Your task to perform on an android device: Go to wifi settings Image 0: 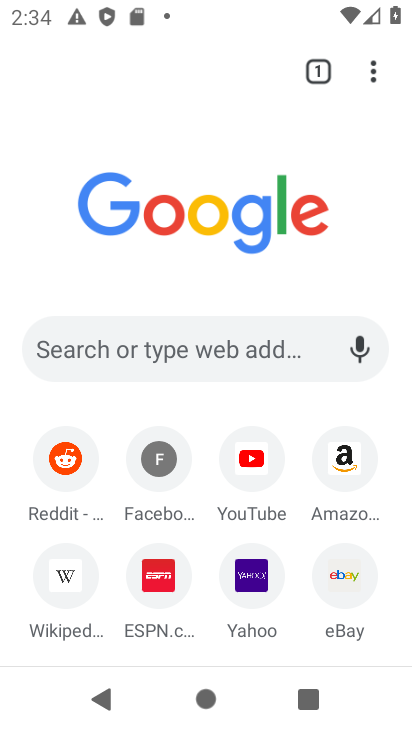
Step 0: press home button
Your task to perform on an android device: Go to wifi settings Image 1: 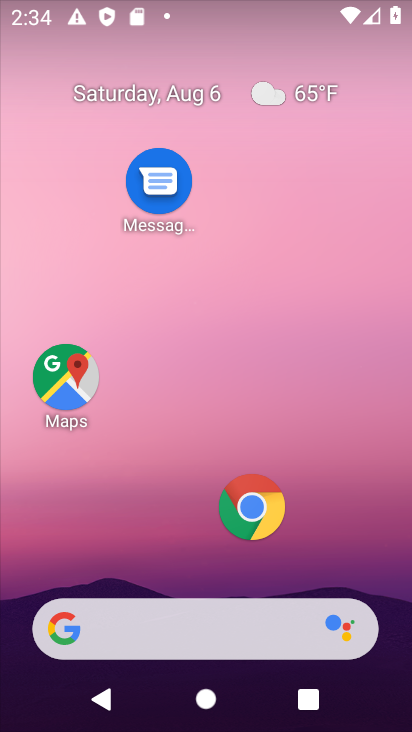
Step 1: click (201, 69)
Your task to perform on an android device: Go to wifi settings Image 2: 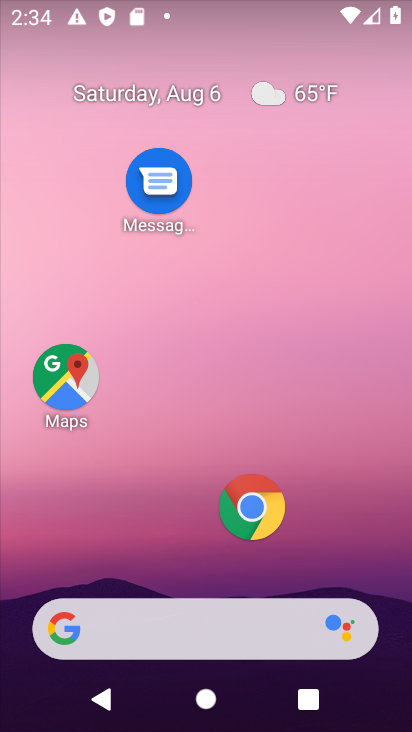
Step 2: drag from (183, 545) to (269, 0)
Your task to perform on an android device: Go to wifi settings Image 3: 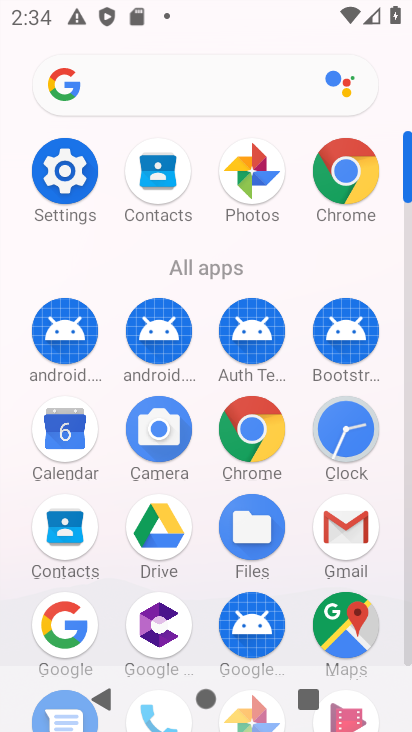
Step 3: click (67, 177)
Your task to perform on an android device: Go to wifi settings Image 4: 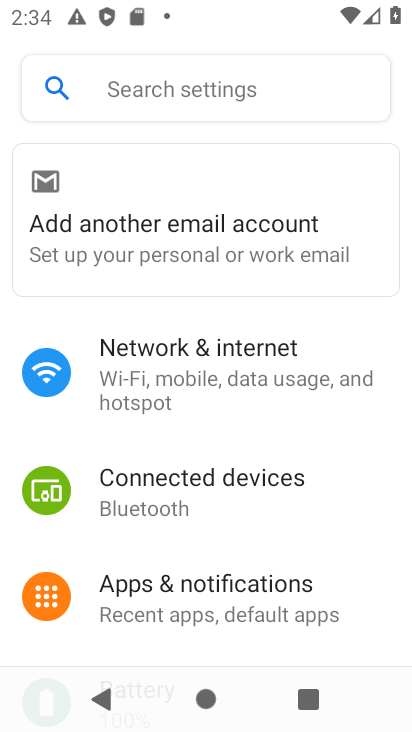
Step 4: click (179, 403)
Your task to perform on an android device: Go to wifi settings Image 5: 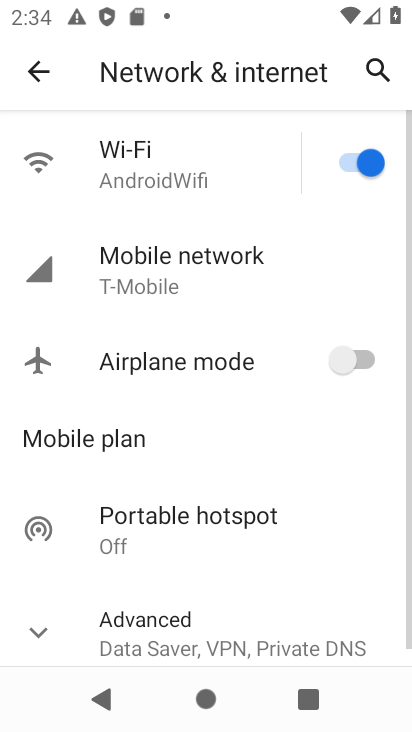
Step 5: click (131, 163)
Your task to perform on an android device: Go to wifi settings Image 6: 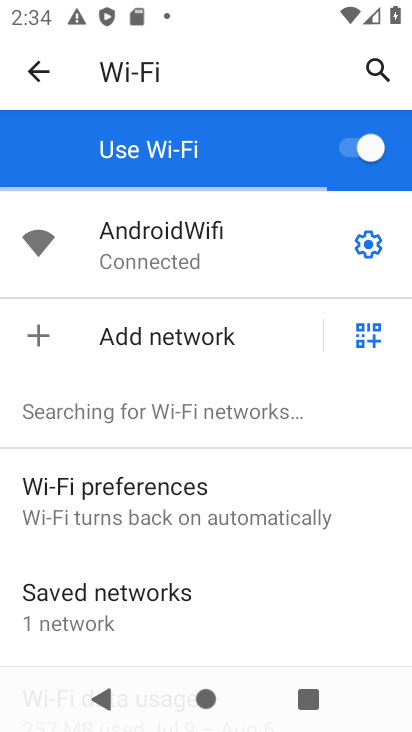
Step 6: task complete